Your task to perform on an android device: check data usage Image 0: 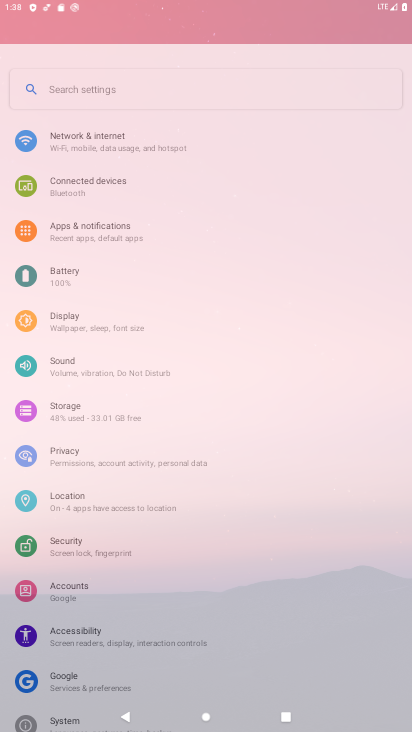
Step 0: press home button
Your task to perform on an android device: check data usage Image 1: 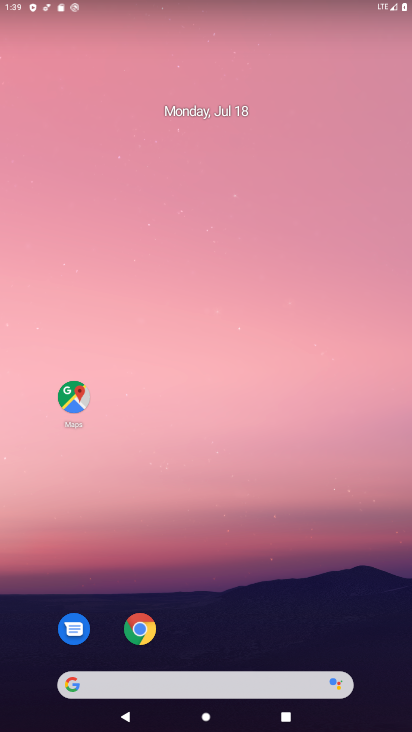
Step 1: drag from (222, 646) to (246, 12)
Your task to perform on an android device: check data usage Image 2: 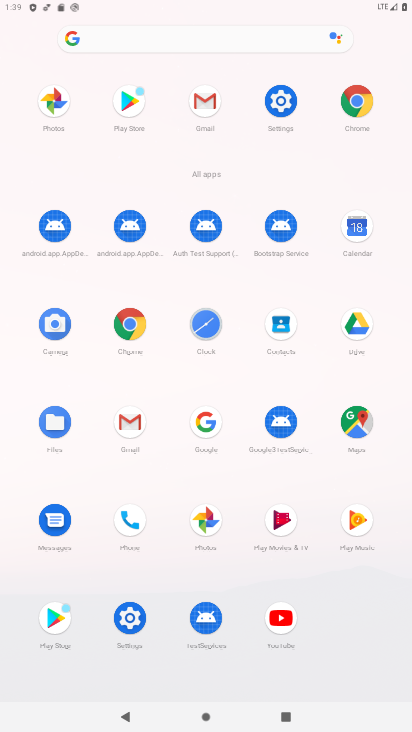
Step 2: click (280, 99)
Your task to perform on an android device: check data usage Image 3: 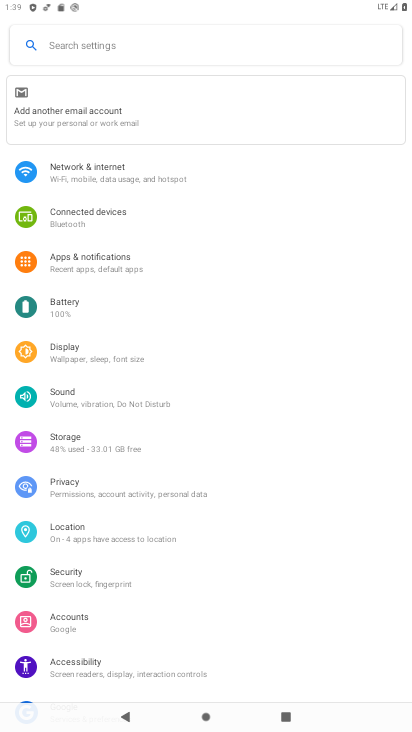
Step 3: click (136, 170)
Your task to perform on an android device: check data usage Image 4: 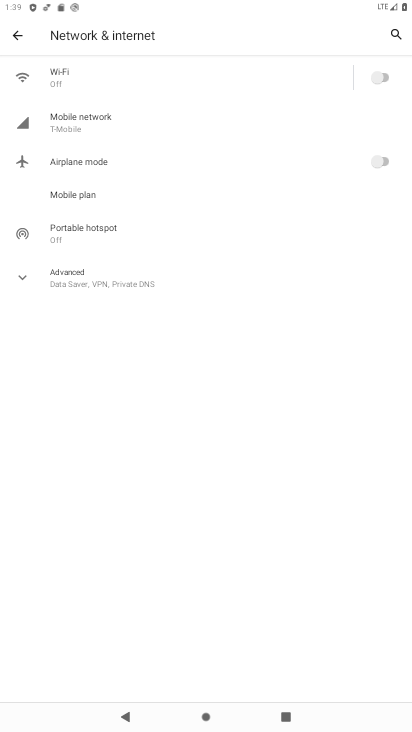
Step 4: click (105, 120)
Your task to perform on an android device: check data usage Image 5: 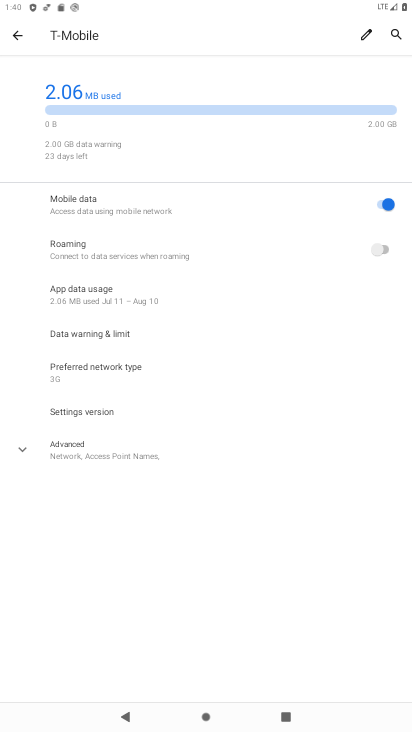
Step 5: click (127, 293)
Your task to perform on an android device: check data usage Image 6: 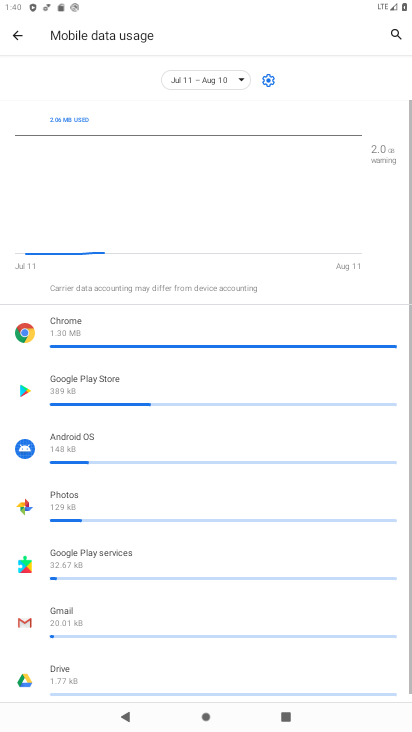
Step 6: task complete